Your task to perform on an android device: Open calendar and show me the fourth week of next month Image 0: 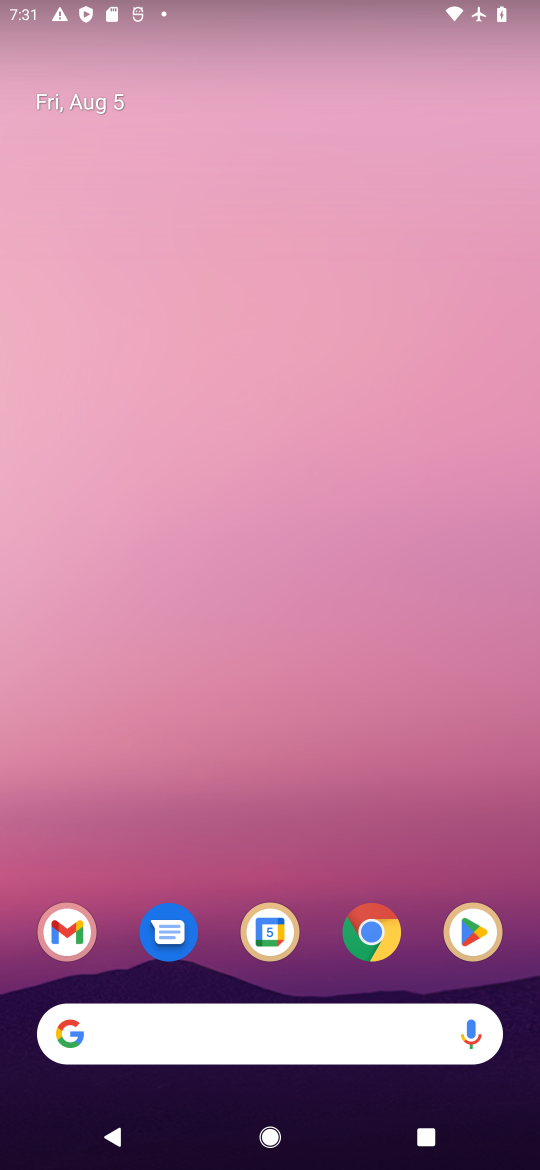
Step 0: drag from (212, 1026) to (274, 315)
Your task to perform on an android device: Open calendar and show me the fourth week of next month Image 1: 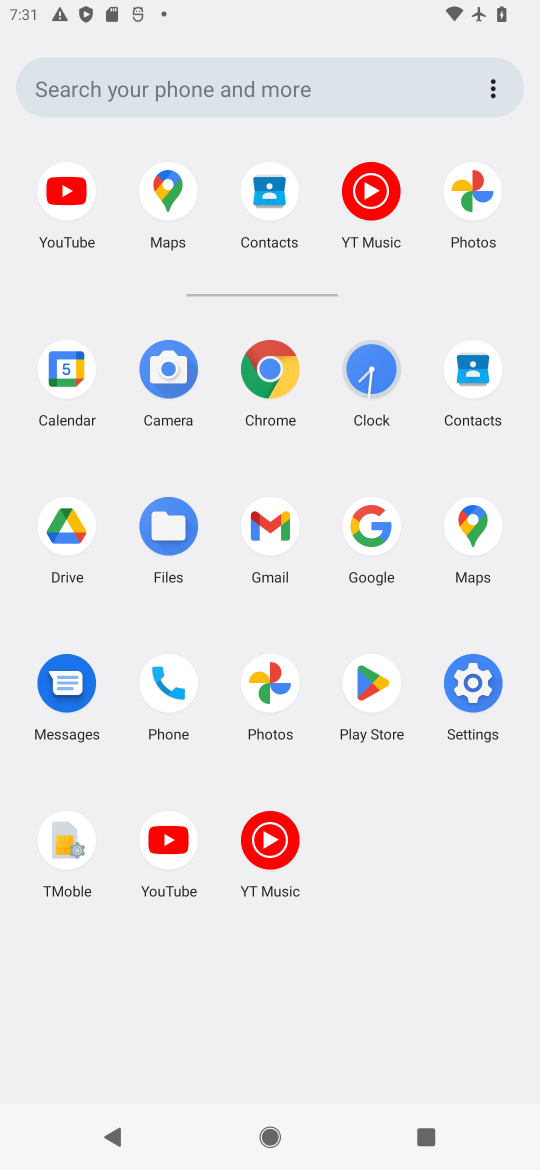
Step 1: click (65, 367)
Your task to perform on an android device: Open calendar and show me the fourth week of next month Image 2: 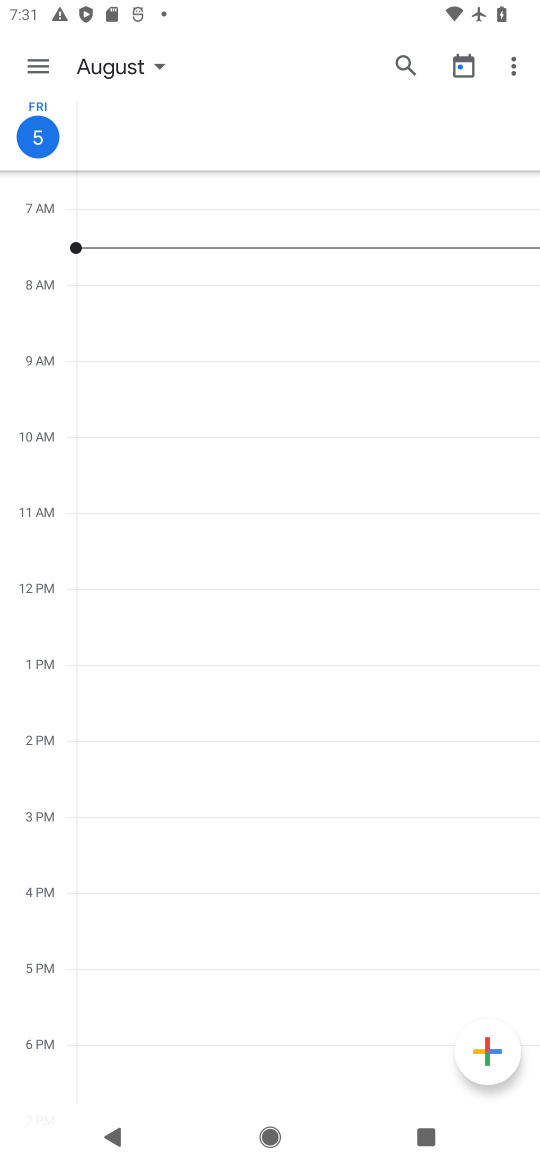
Step 2: click (466, 67)
Your task to perform on an android device: Open calendar and show me the fourth week of next month Image 3: 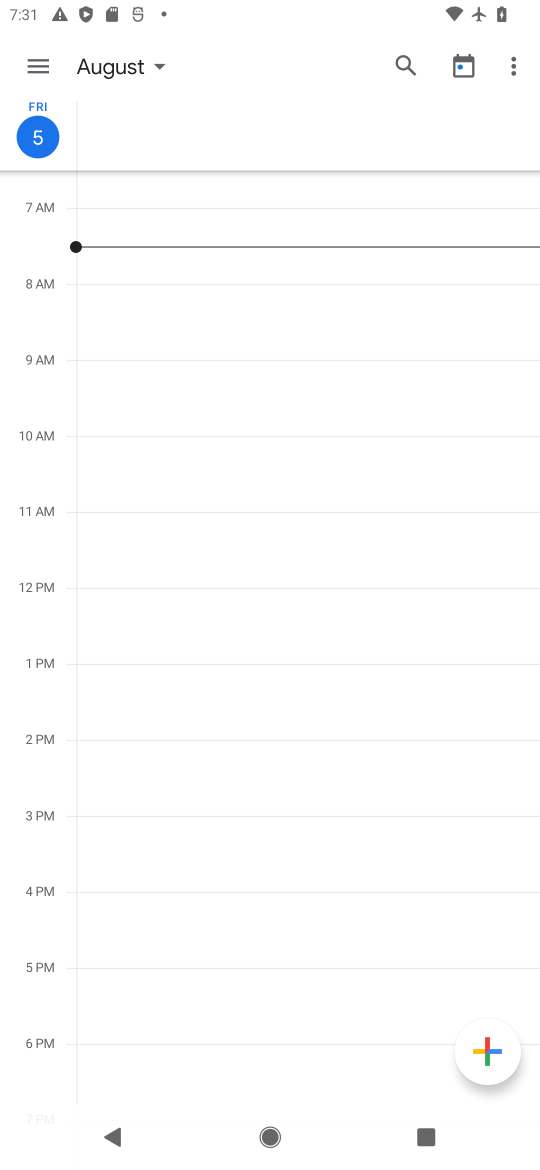
Step 3: click (154, 66)
Your task to perform on an android device: Open calendar and show me the fourth week of next month Image 4: 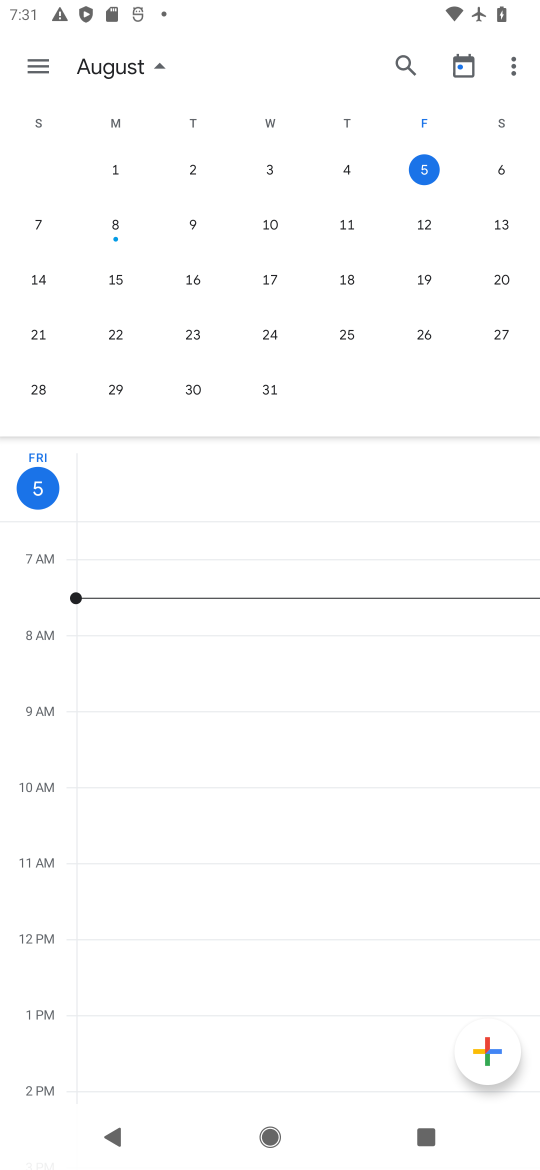
Step 4: drag from (527, 297) to (10, 286)
Your task to perform on an android device: Open calendar and show me the fourth week of next month Image 5: 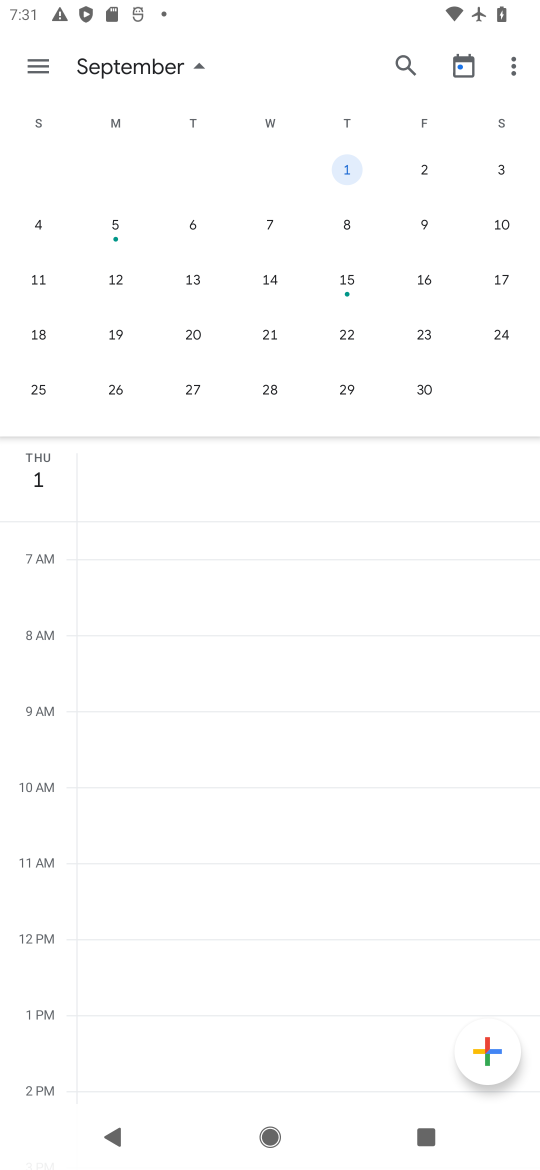
Step 5: click (106, 395)
Your task to perform on an android device: Open calendar and show me the fourth week of next month Image 6: 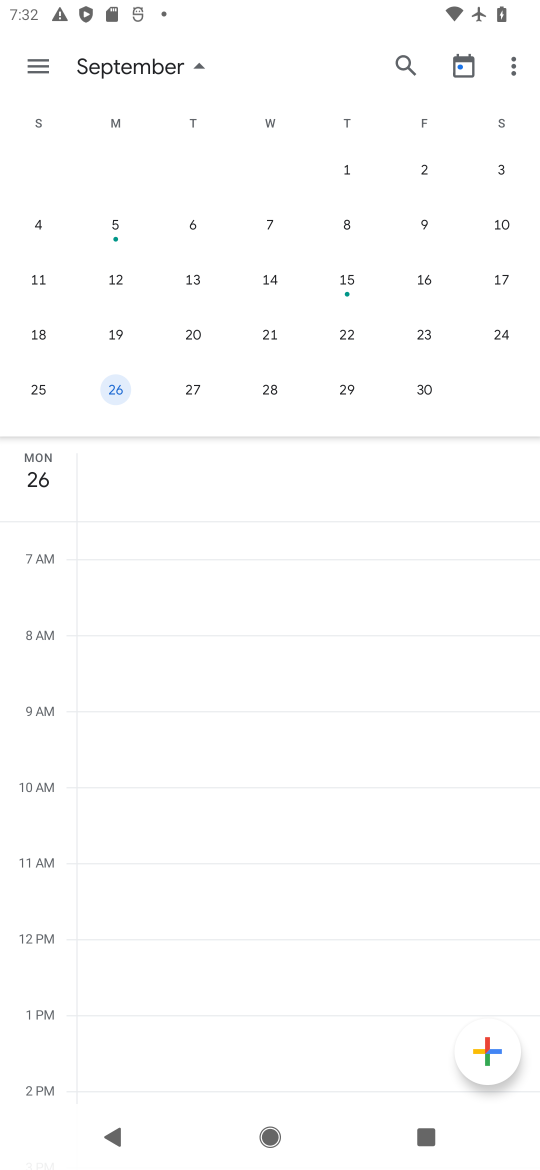
Step 6: click (44, 64)
Your task to perform on an android device: Open calendar and show me the fourth week of next month Image 7: 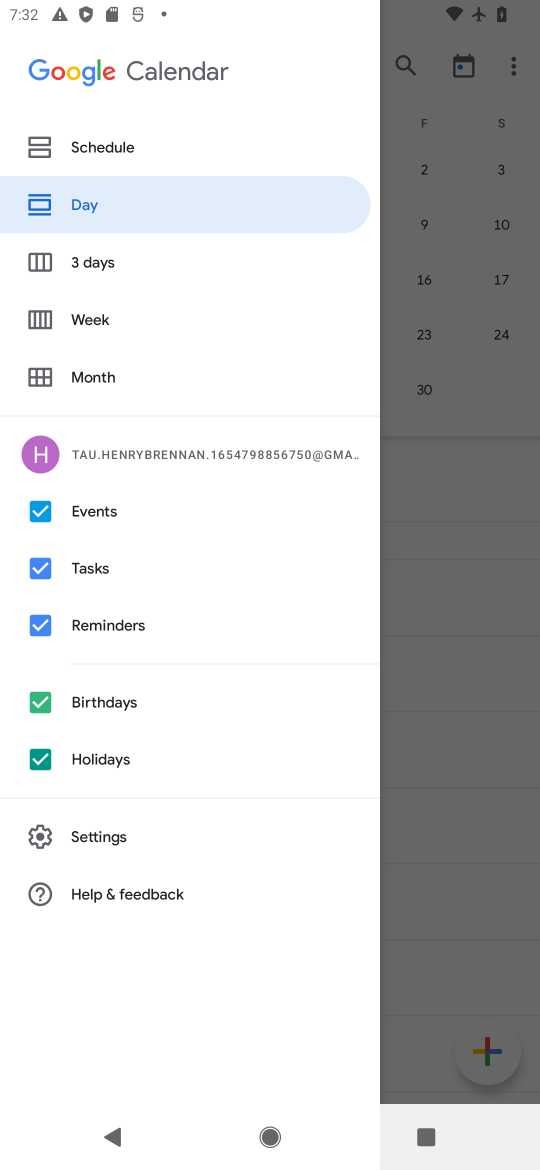
Step 7: click (113, 331)
Your task to perform on an android device: Open calendar and show me the fourth week of next month Image 8: 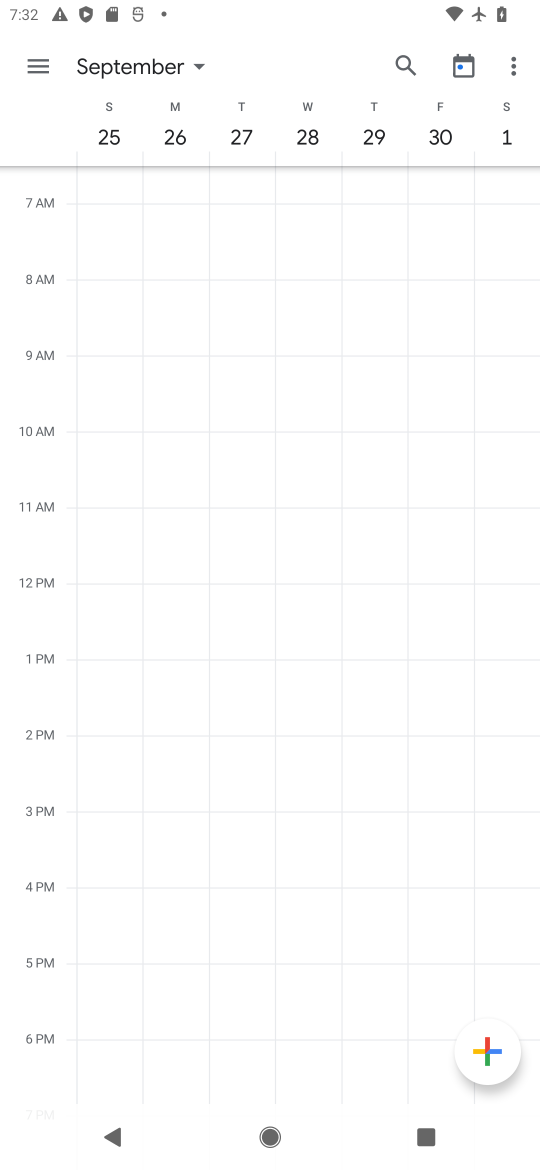
Step 8: task complete